Your task to perform on an android device: Turn off the flashlight Image 0: 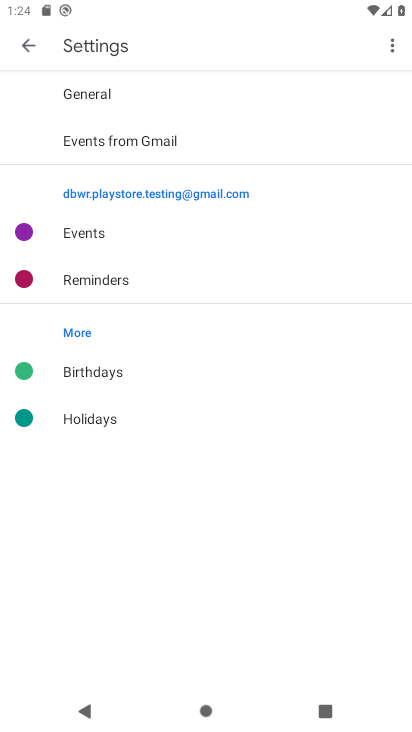
Step 0: press home button
Your task to perform on an android device: Turn off the flashlight Image 1: 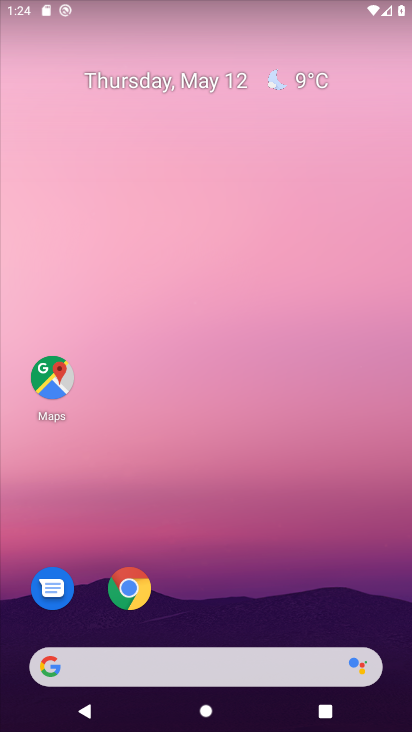
Step 1: drag from (302, 575) to (243, 154)
Your task to perform on an android device: Turn off the flashlight Image 2: 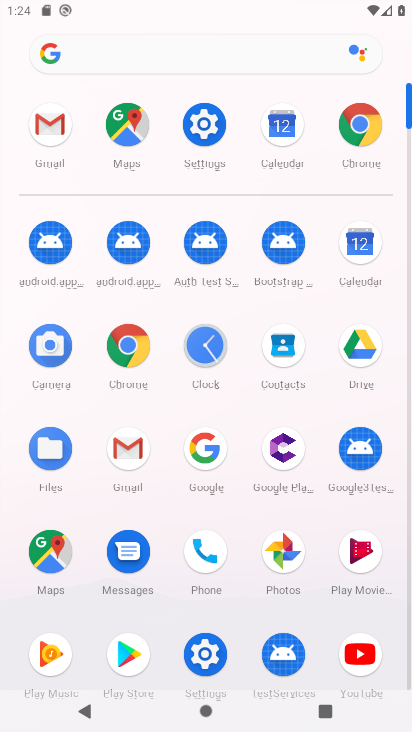
Step 2: click (189, 132)
Your task to perform on an android device: Turn off the flashlight Image 3: 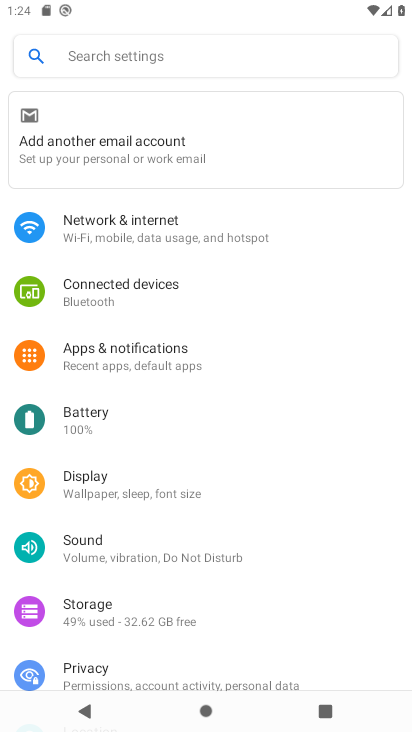
Step 3: task complete